Your task to perform on an android device: Open eBay Image 0: 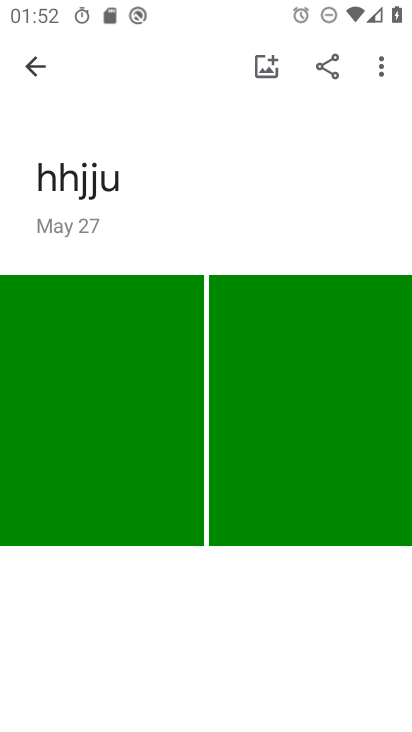
Step 0: press home button
Your task to perform on an android device: Open eBay Image 1: 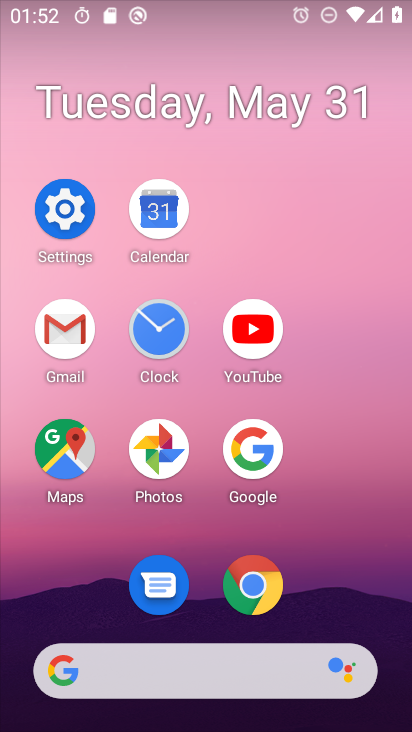
Step 1: click (268, 593)
Your task to perform on an android device: Open eBay Image 2: 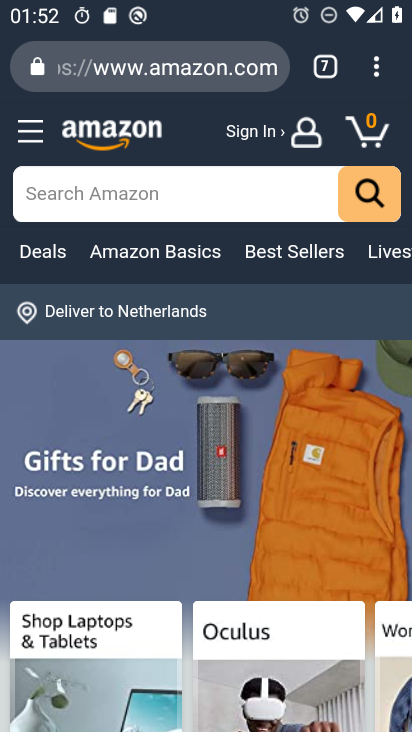
Step 2: click (318, 61)
Your task to perform on an android device: Open eBay Image 3: 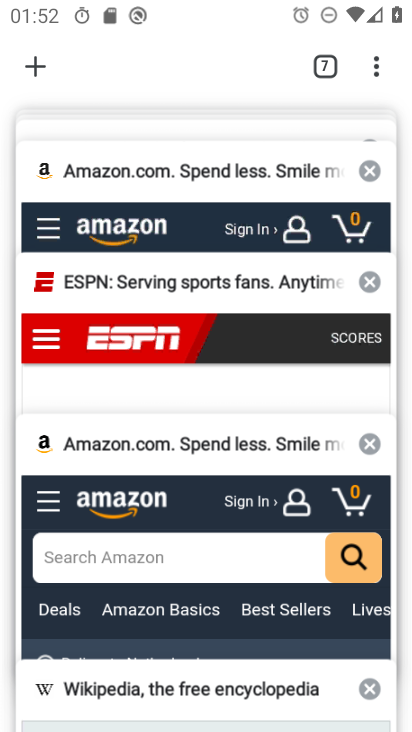
Step 3: drag from (220, 237) to (211, 572)
Your task to perform on an android device: Open eBay Image 4: 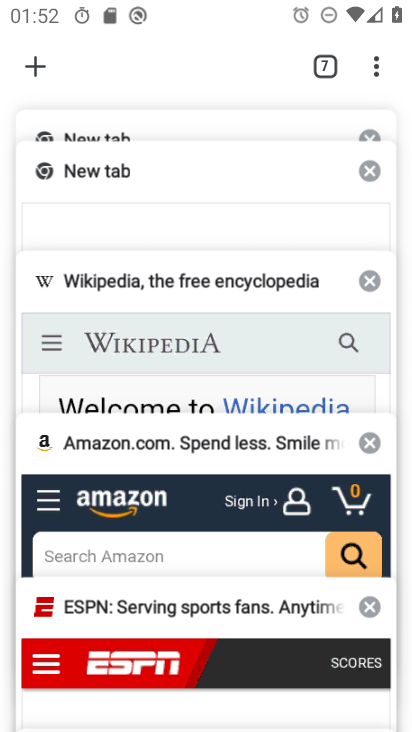
Step 4: drag from (206, 174) to (218, 560)
Your task to perform on an android device: Open eBay Image 5: 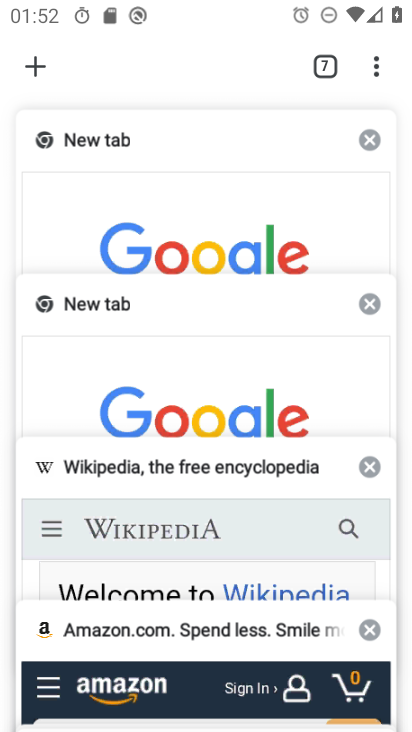
Step 5: drag from (196, 439) to (244, 105)
Your task to perform on an android device: Open eBay Image 6: 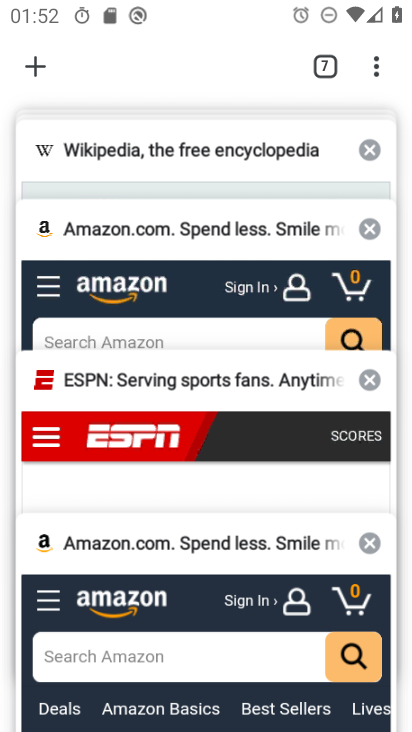
Step 6: drag from (205, 540) to (228, 142)
Your task to perform on an android device: Open eBay Image 7: 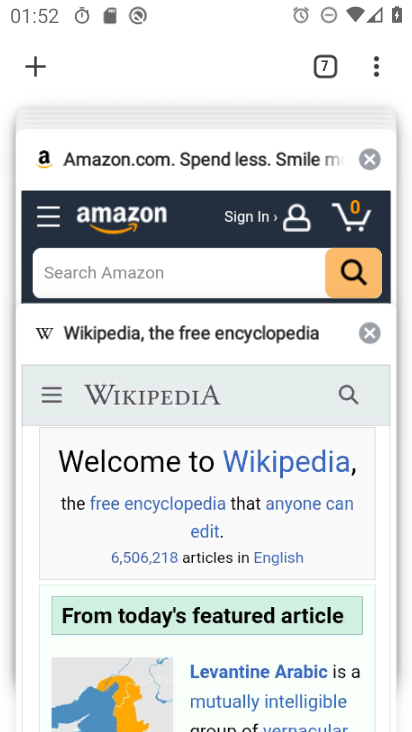
Step 7: click (31, 74)
Your task to perform on an android device: Open eBay Image 8: 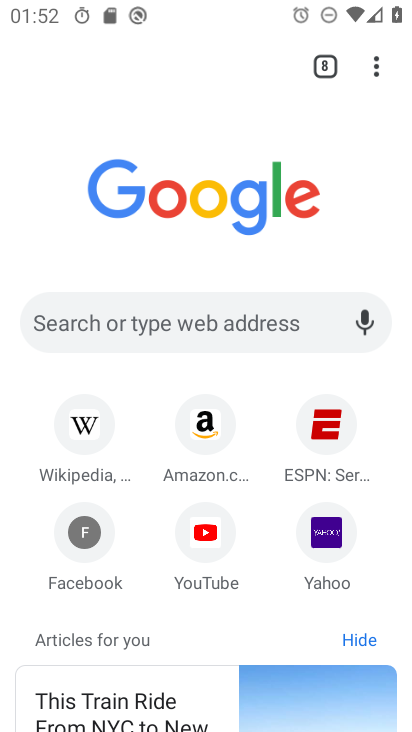
Step 8: click (199, 321)
Your task to perform on an android device: Open eBay Image 9: 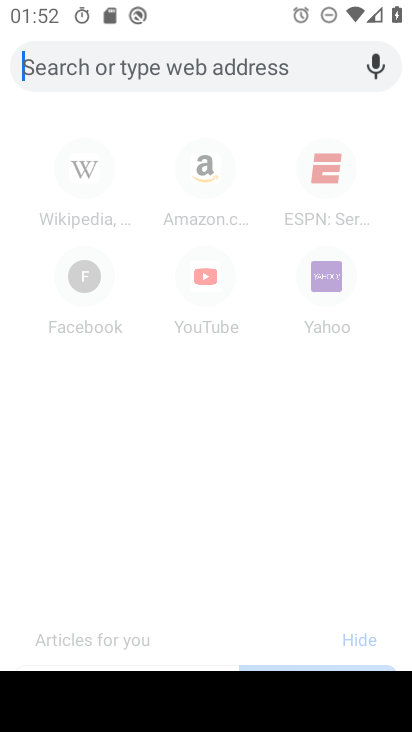
Step 9: type "ebay"
Your task to perform on an android device: Open eBay Image 10: 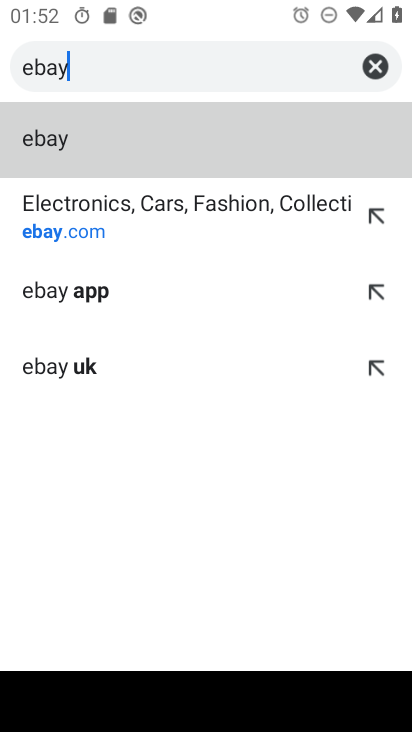
Step 10: click (102, 220)
Your task to perform on an android device: Open eBay Image 11: 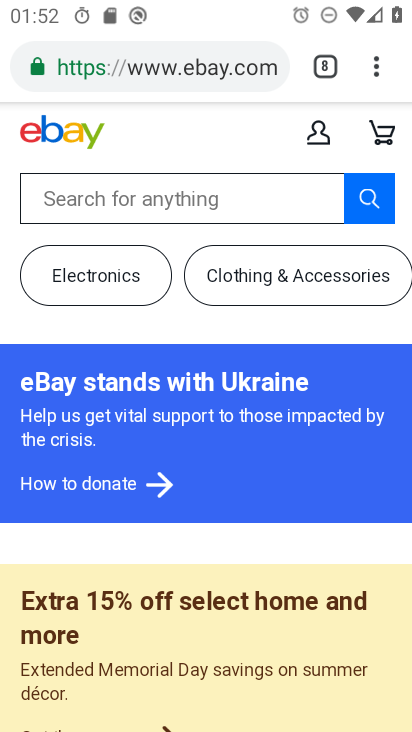
Step 11: task complete